Your task to perform on an android device: turn off translation in the chrome app Image 0: 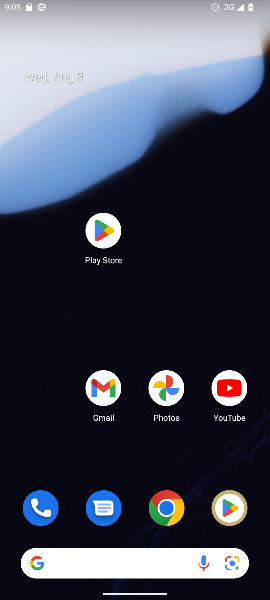
Step 0: click (168, 506)
Your task to perform on an android device: turn off translation in the chrome app Image 1: 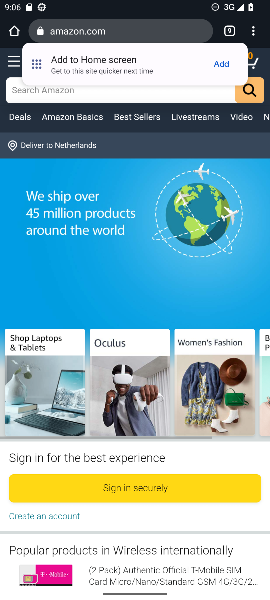
Step 1: click (254, 26)
Your task to perform on an android device: turn off translation in the chrome app Image 2: 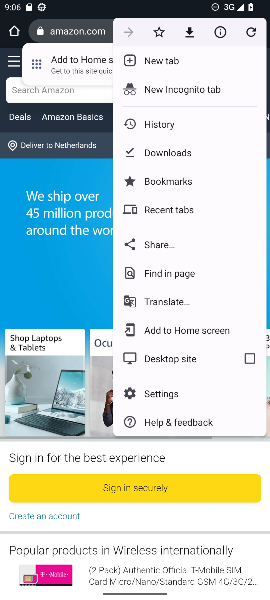
Step 2: click (164, 386)
Your task to perform on an android device: turn off translation in the chrome app Image 3: 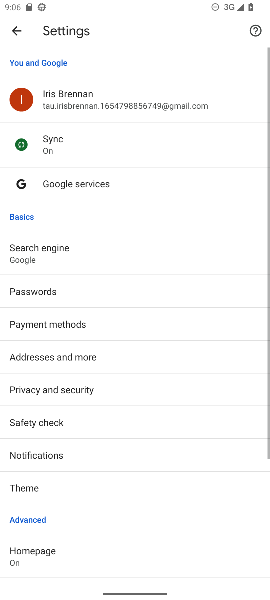
Step 3: drag from (71, 531) to (73, 252)
Your task to perform on an android device: turn off translation in the chrome app Image 4: 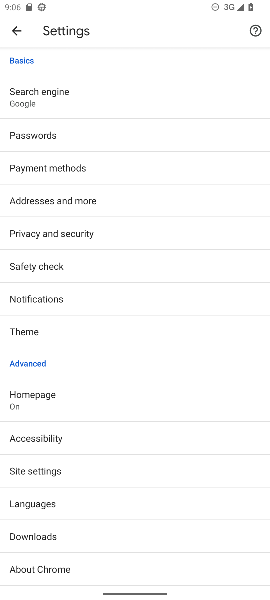
Step 4: click (34, 502)
Your task to perform on an android device: turn off translation in the chrome app Image 5: 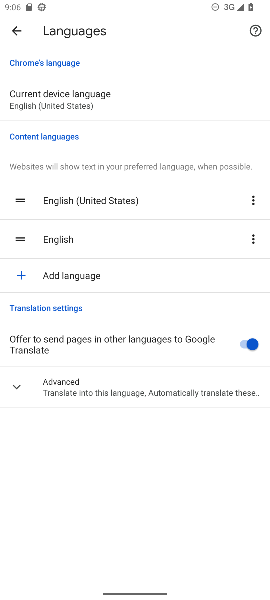
Step 5: click (236, 342)
Your task to perform on an android device: turn off translation in the chrome app Image 6: 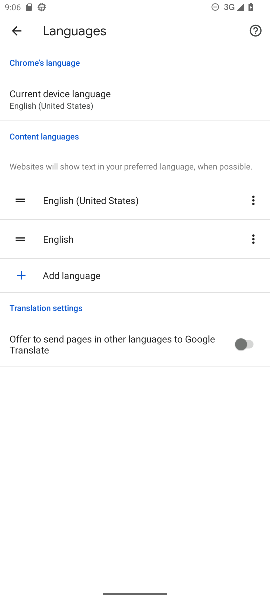
Step 6: task complete